Your task to perform on an android device: open a new tab in the chrome app Image 0: 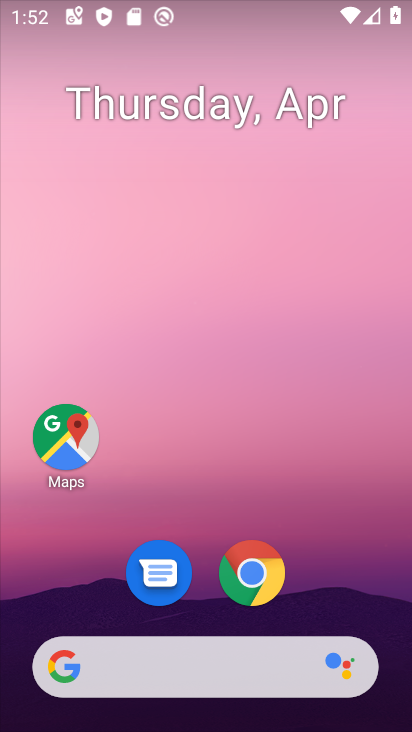
Step 0: drag from (336, 598) to (254, 86)
Your task to perform on an android device: open a new tab in the chrome app Image 1: 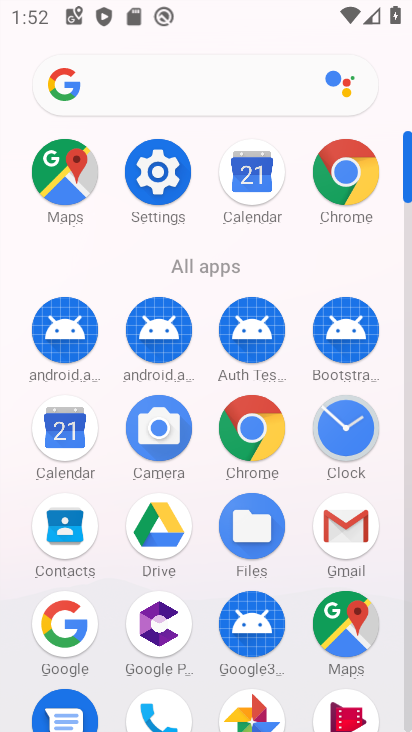
Step 1: click (252, 430)
Your task to perform on an android device: open a new tab in the chrome app Image 2: 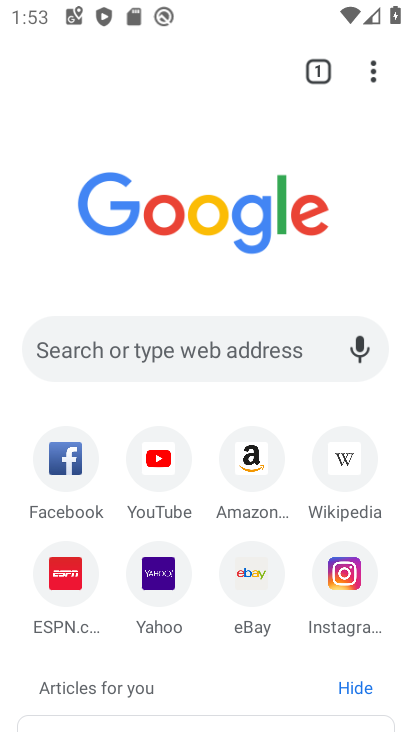
Step 2: click (368, 64)
Your task to perform on an android device: open a new tab in the chrome app Image 3: 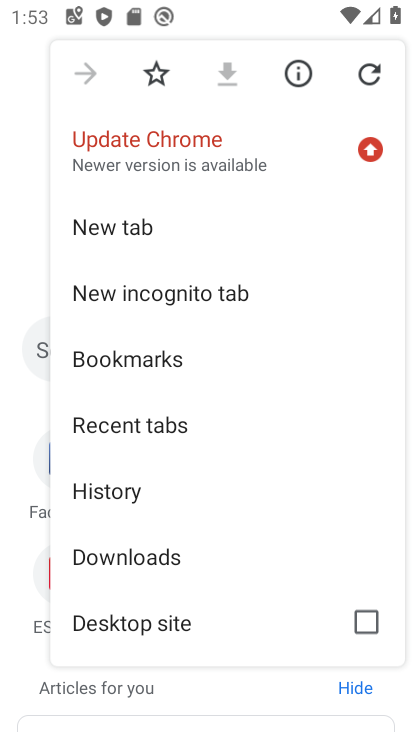
Step 3: click (186, 229)
Your task to perform on an android device: open a new tab in the chrome app Image 4: 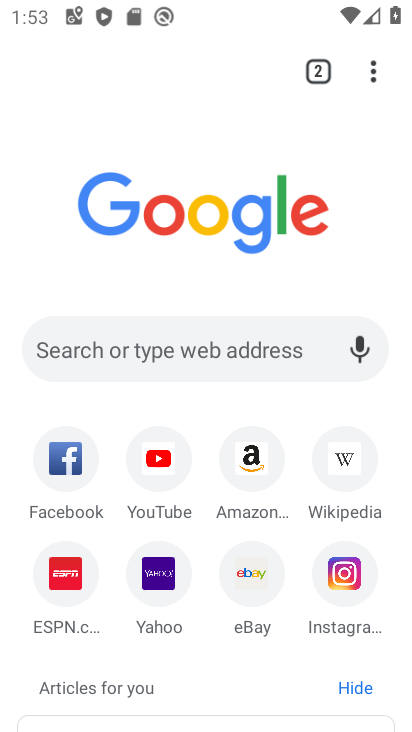
Step 4: task complete